Your task to perform on an android device: change timer sound Image 0: 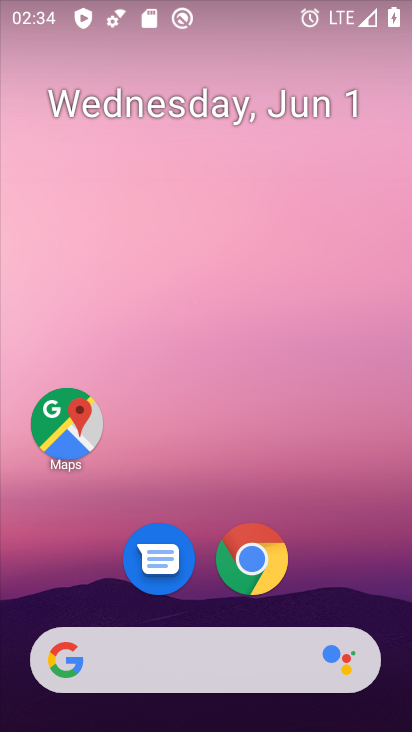
Step 0: press home button
Your task to perform on an android device: change timer sound Image 1: 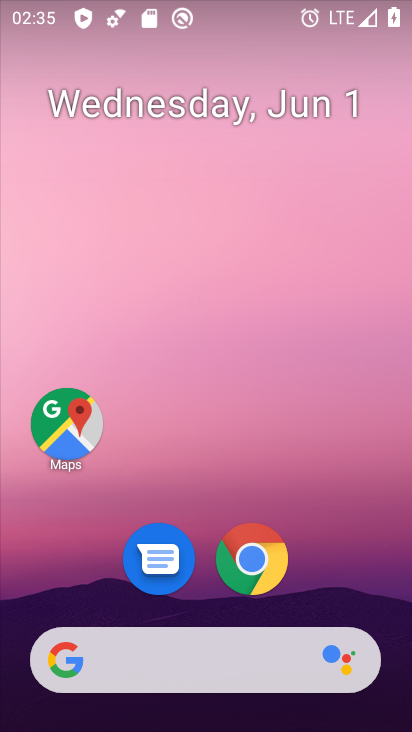
Step 1: drag from (313, 568) to (346, 33)
Your task to perform on an android device: change timer sound Image 2: 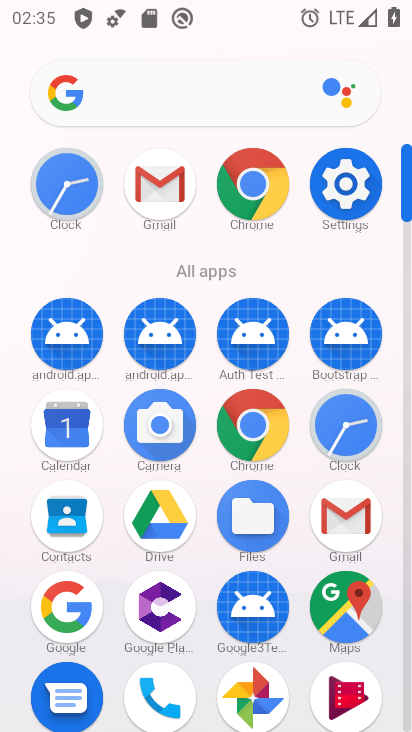
Step 2: click (62, 172)
Your task to perform on an android device: change timer sound Image 3: 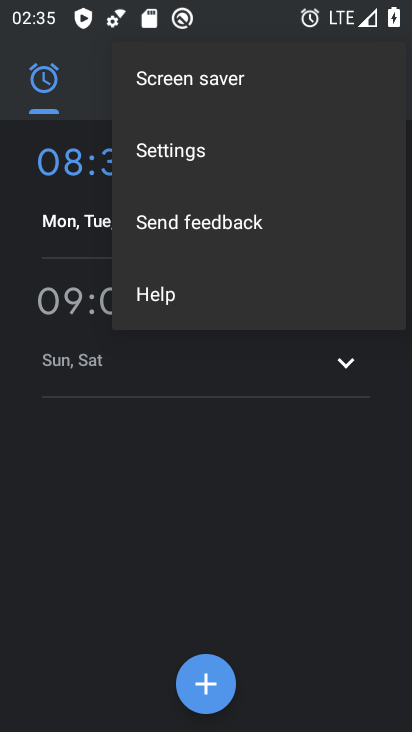
Step 3: click (188, 160)
Your task to perform on an android device: change timer sound Image 4: 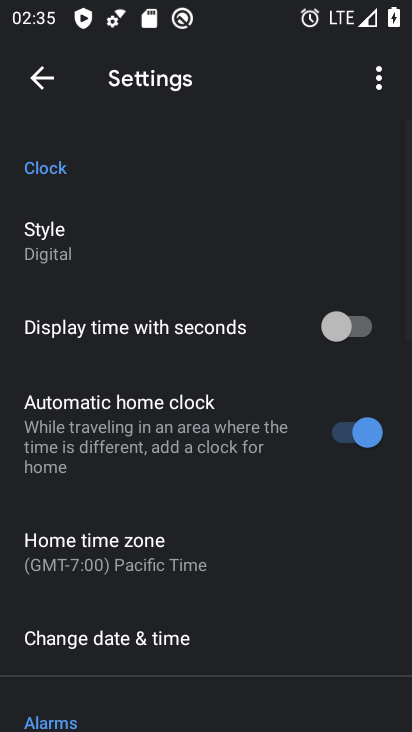
Step 4: drag from (262, 561) to (262, 192)
Your task to perform on an android device: change timer sound Image 5: 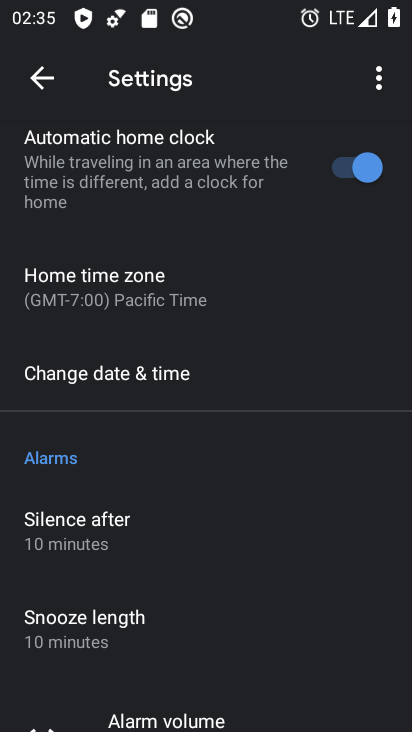
Step 5: drag from (257, 604) to (287, 259)
Your task to perform on an android device: change timer sound Image 6: 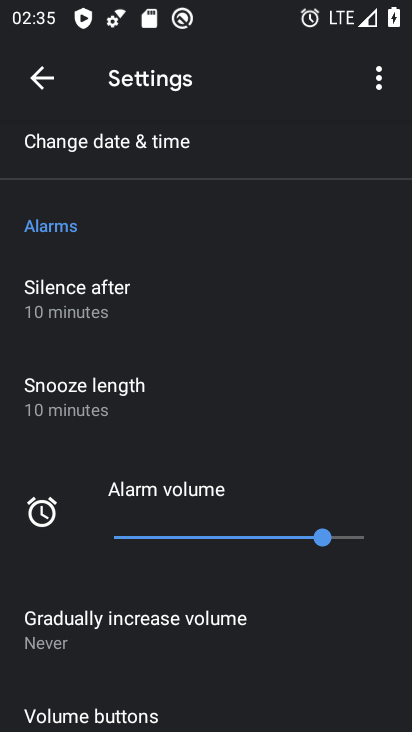
Step 6: drag from (263, 641) to (282, 196)
Your task to perform on an android device: change timer sound Image 7: 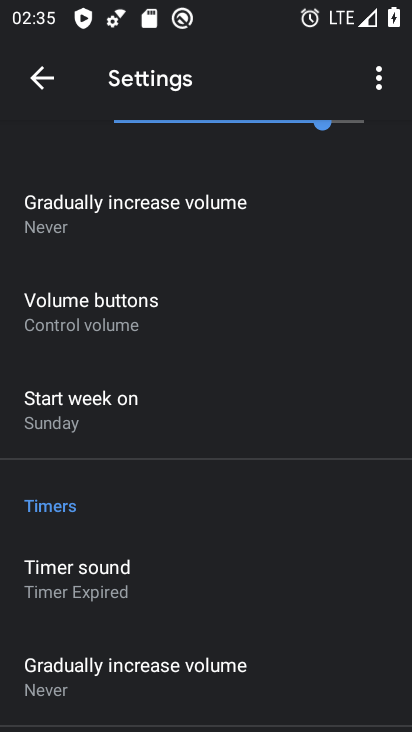
Step 7: drag from (246, 531) to (266, 248)
Your task to perform on an android device: change timer sound Image 8: 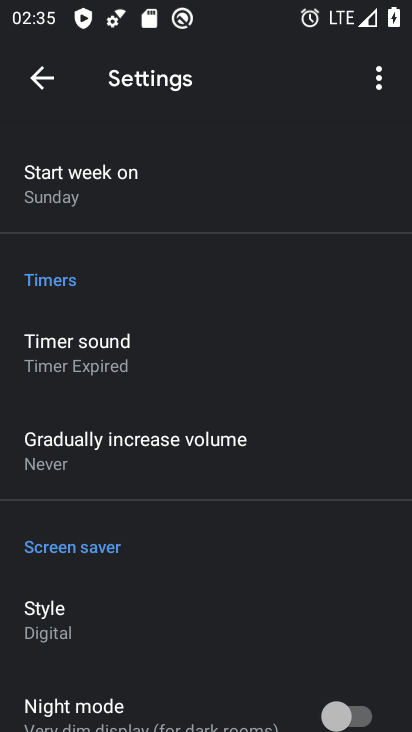
Step 8: click (63, 347)
Your task to perform on an android device: change timer sound Image 9: 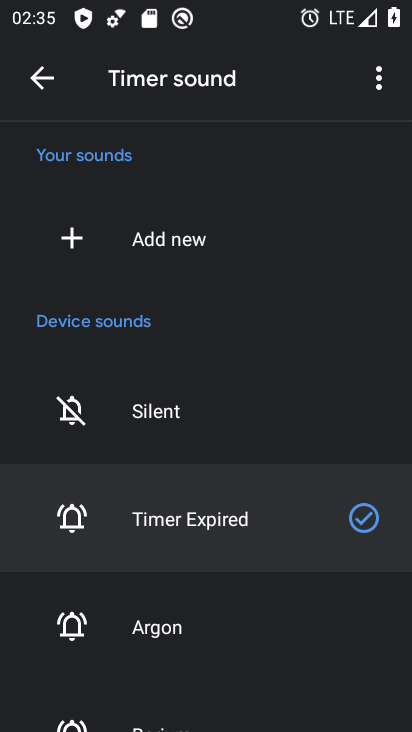
Step 9: click (155, 627)
Your task to perform on an android device: change timer sound Image 10: 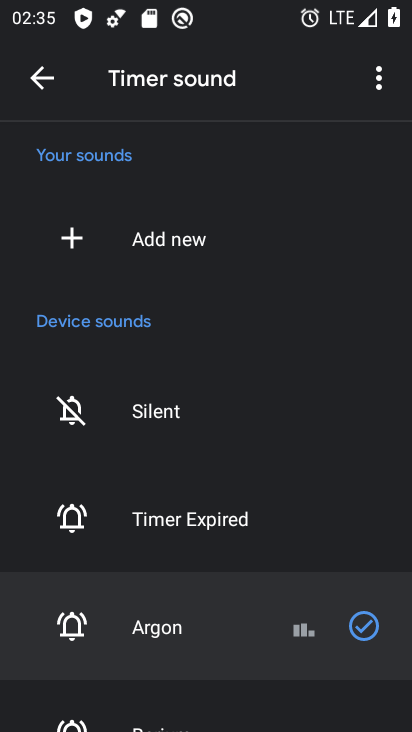
Step 10: task complete